Your task to perform on an android device: delete a single message in the gmail app Image 0: 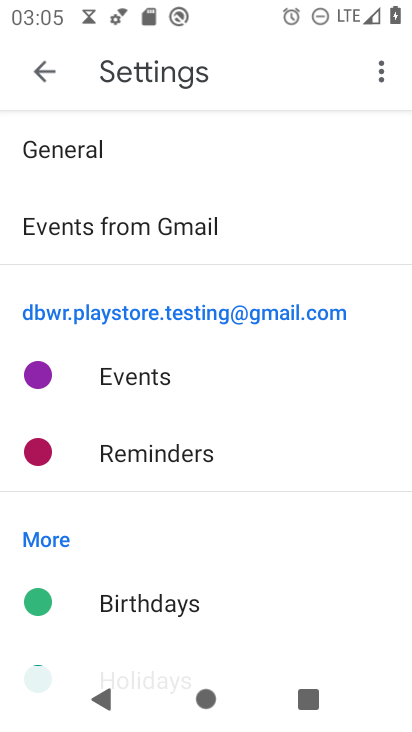
Step 0: press home button
Your task to perform on an android device: delete a single message in the gmail app Image 1: 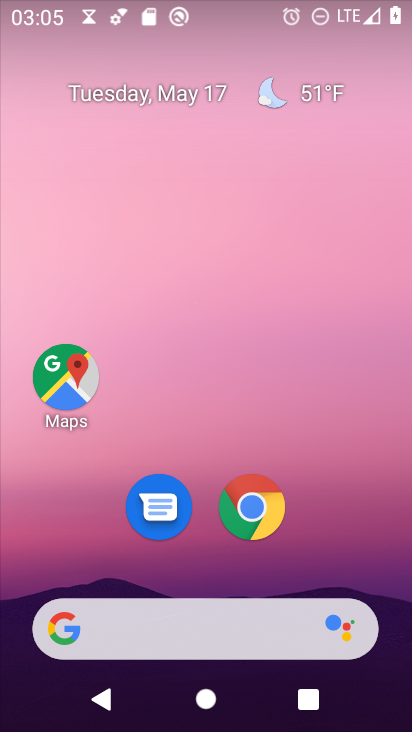
Step 1: drag from (204, 562) to (215, 100)
Your task to perform on an android device: delete a single message in the gmail app Image 2: 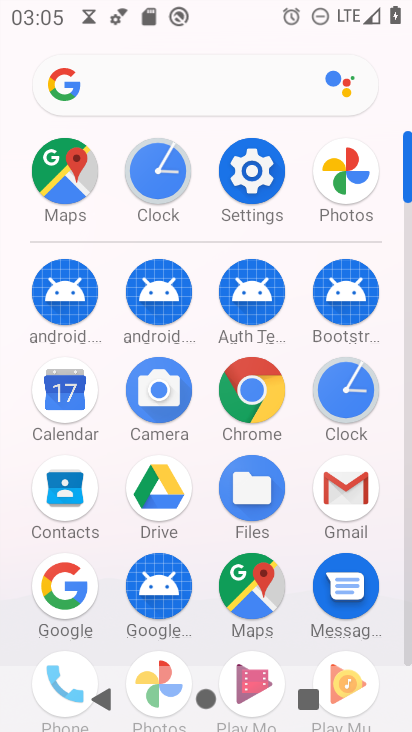
Step 2: click (344, 492)
Your task to perform on an android device: delete a single message in the gmail app Image 3: 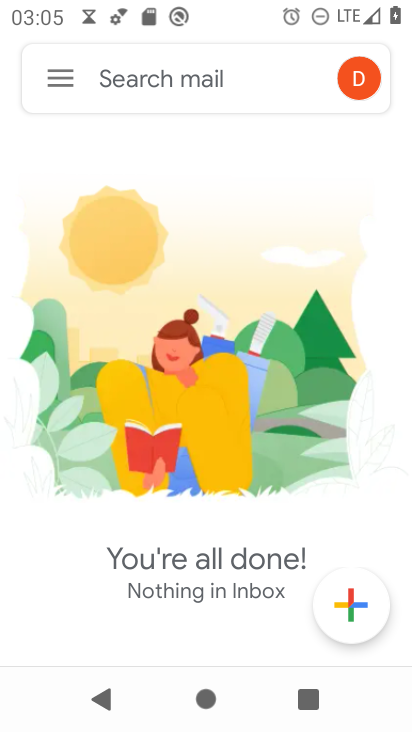
Step 3: click (60, 67)
Your task to perform on an android device: delete a single message in the gmail app Image 4: 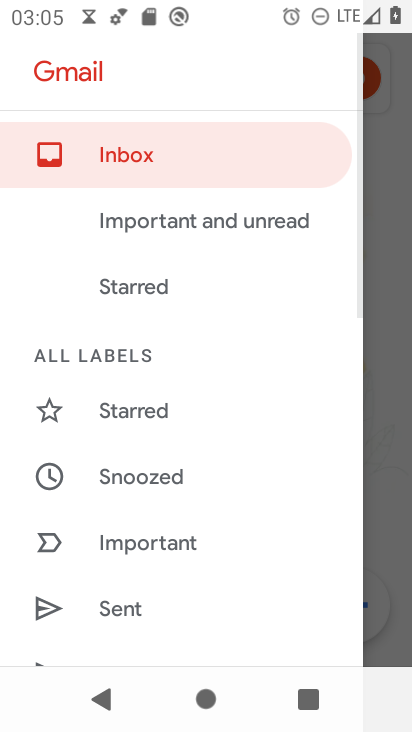
Step 4: drag from (177, 562) to (165, 235)
Your task to perform on an android device: delete a single message in the gmail app Image 5: 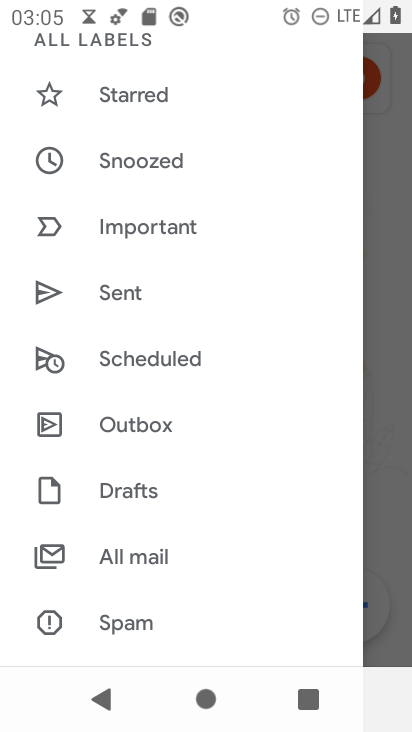
Step 5: click (158, 551)
Your task to perform on an android device: delete a single message in the gmail app Image 6: 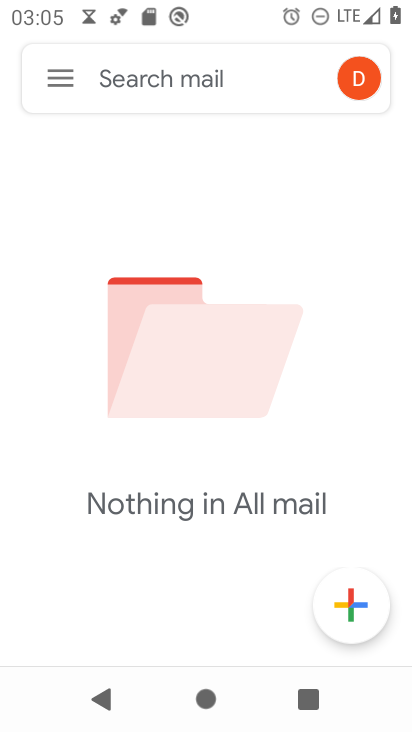
Step 6: task complete